Your task to perform on an android device: Show me recent news Image 0: 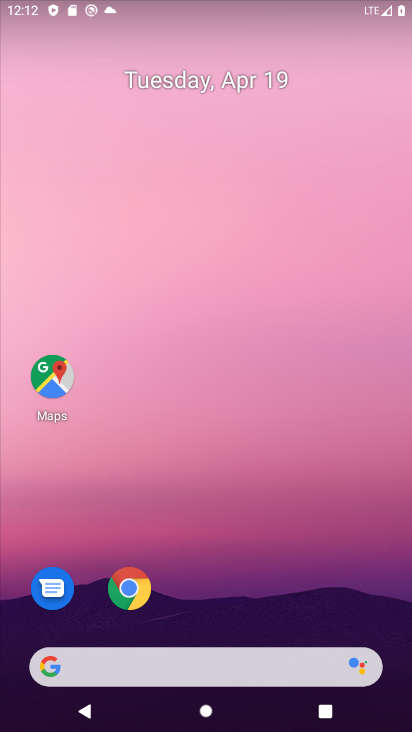
Step 0: drag from (10, 257) to (394, 319)
Your task to perform on an android device: Show me recent news Image 1: 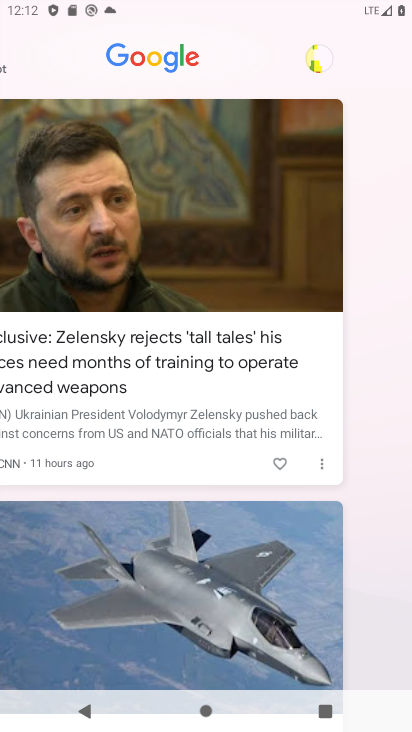
Step 1: task complete